Your task to perform on an android device: Open the map Image 0: 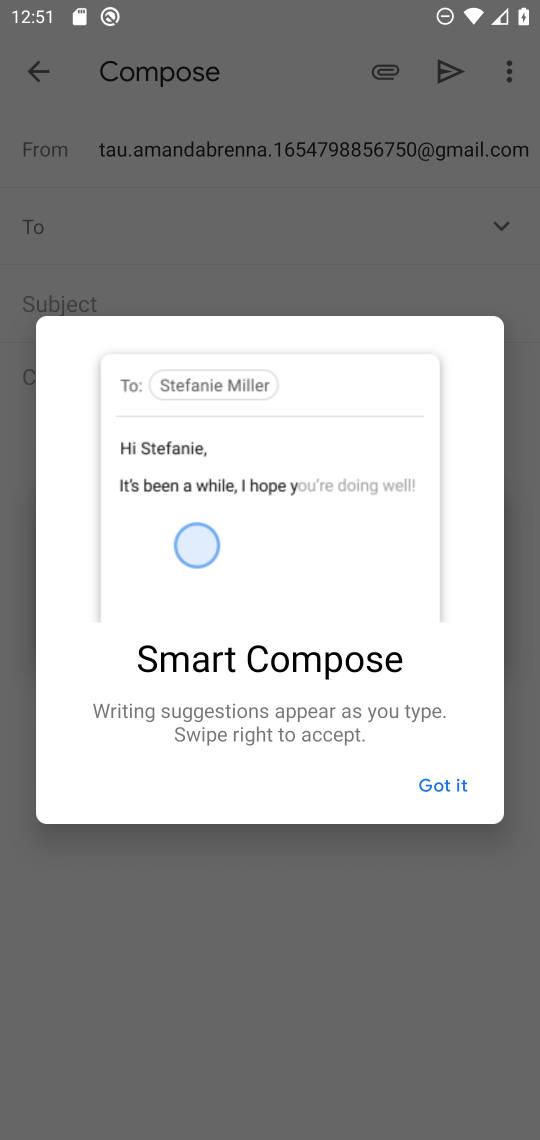
Step 0: press home button
Your task to perform on an android device: Open the map Image 1: 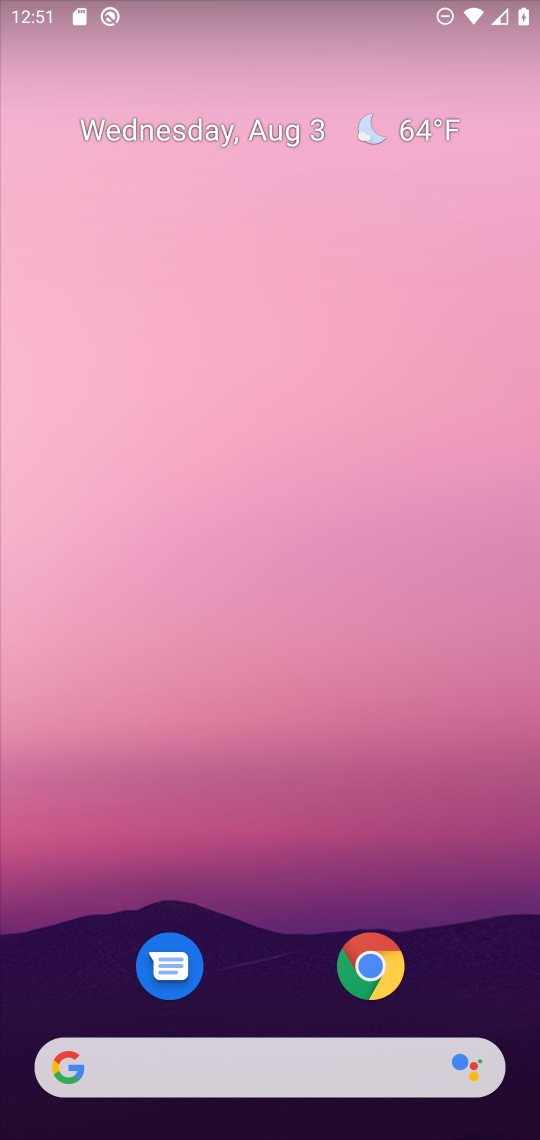
Step 1: drag from (274, 623) to (274, 241)
Your task to perform on an android device: Open the map Image 2: 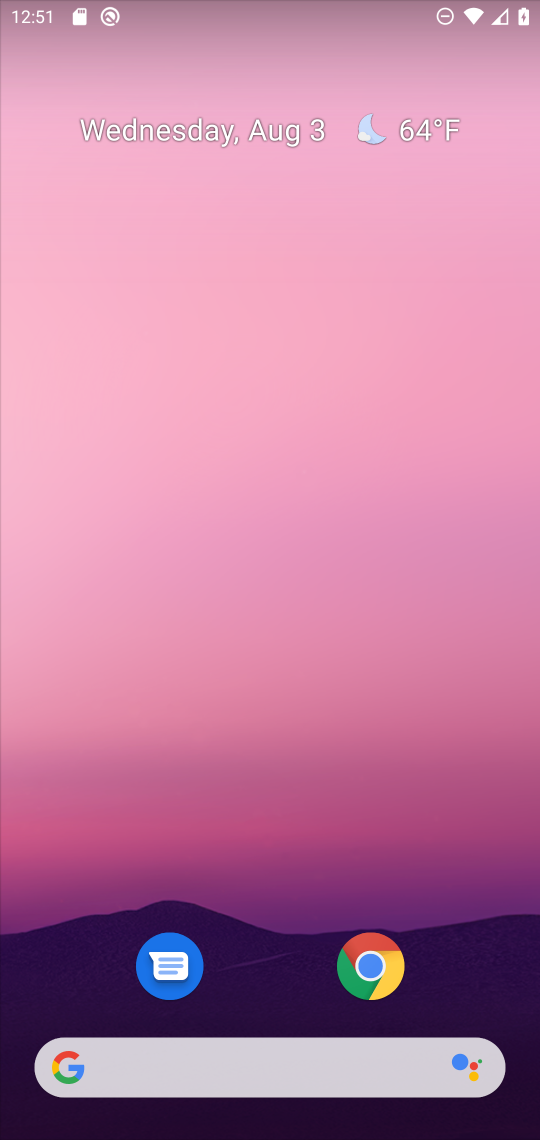
Step 2: drag from (238, 950) to (240, 160)
Your task to perform on an android device: Open the map Image 3: 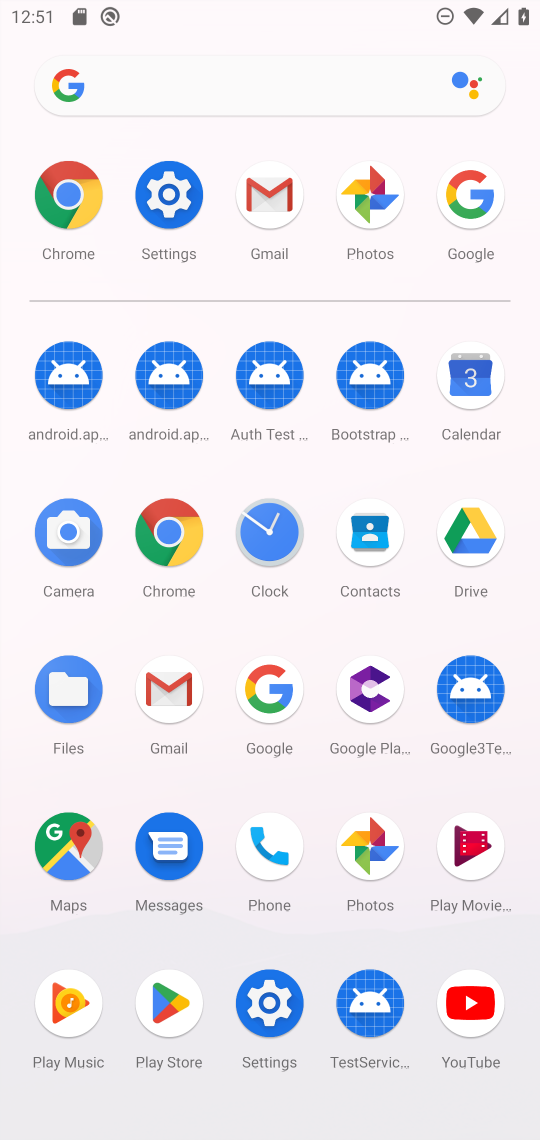
Step 3: click (64, 878)
Your task to perform on an android device: Open the map Image 4: 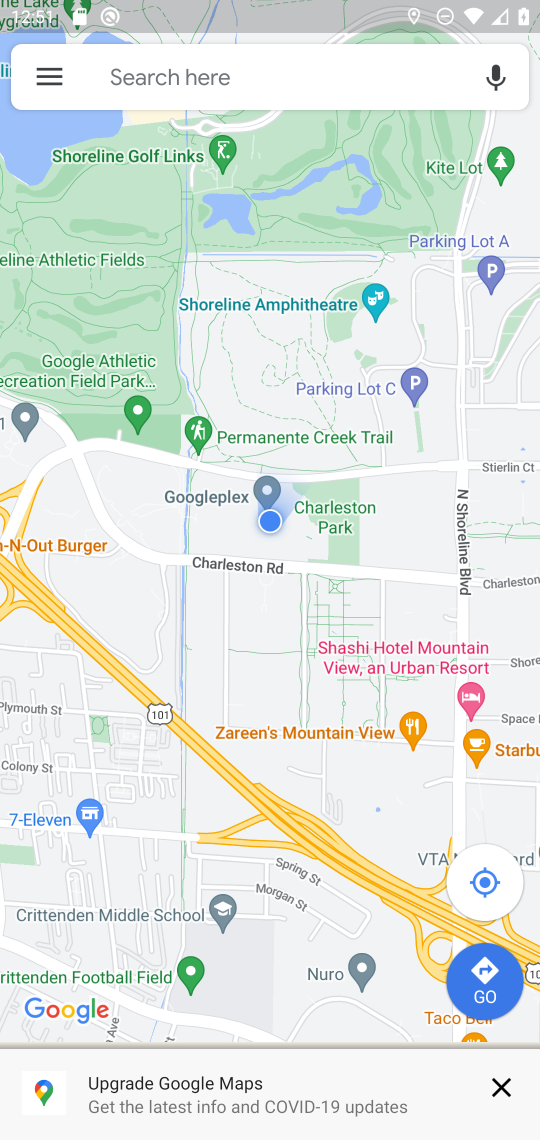
Step 4: task complete